Your task to perform on an android device: create a new album in the google photos Image 0: 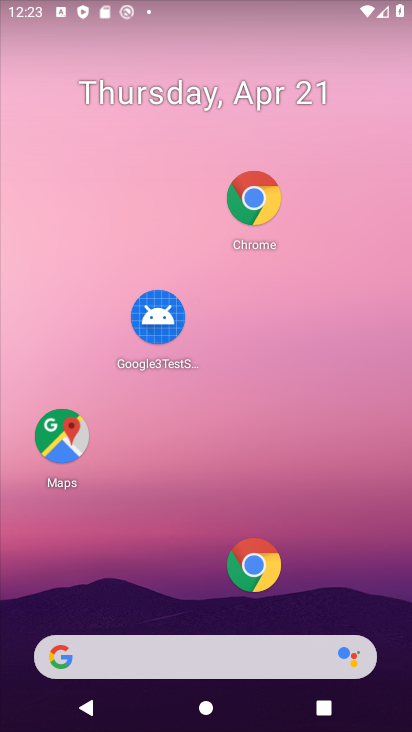
Step 0: drag from (168, 537) to (194, 102)
Your task to perform on an android device: create a new album in the google photos Image 1: 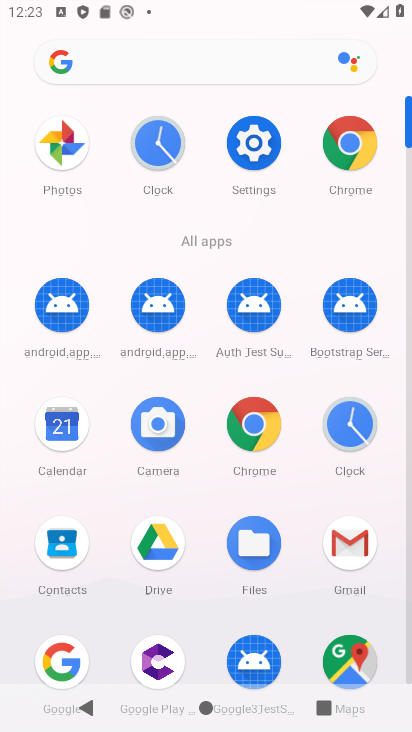
Step 1: click (60, 162)
Your task to perform on an android device: create a new album in the google photos Image 2: 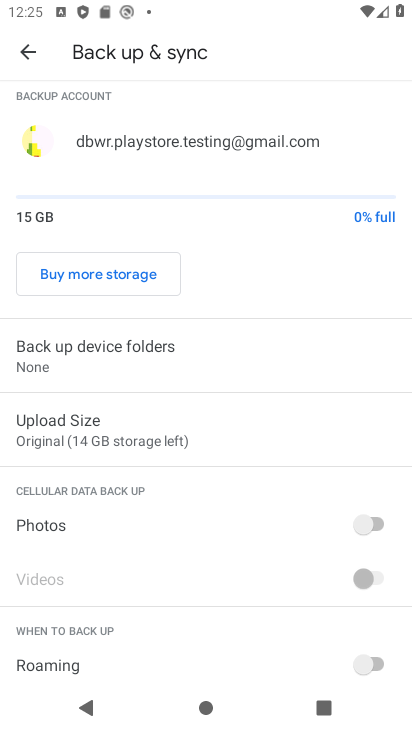
Step 2: click (25, 61)
Your task to perform on an android device: create a new album in the google photos Image 3: 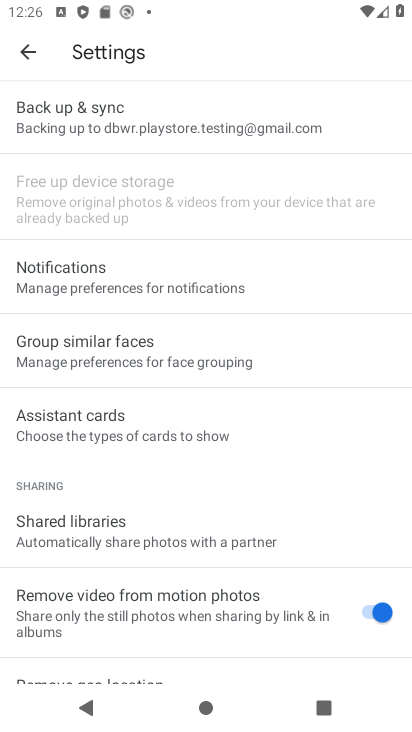
Step 3: click (33, 54)
Your task to perform on an android device: create a new album in the google photos Image 4: 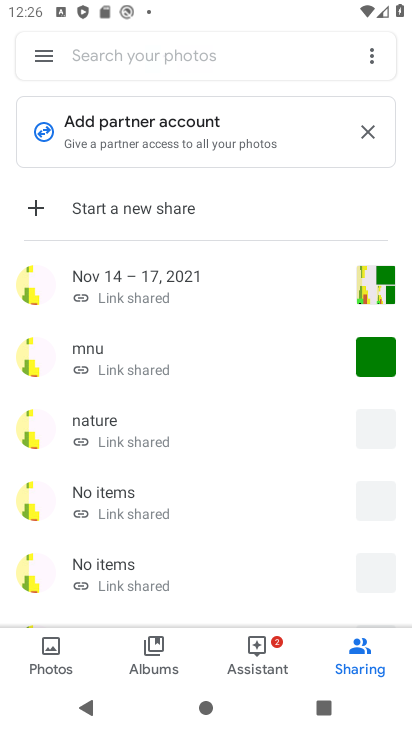
Step 4: click (160, 668)
Your task to perform on an android device: create a new album in the google photos Image 5: 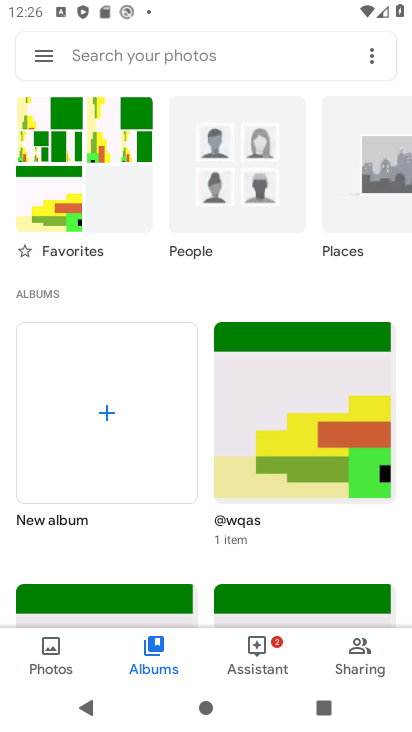
Step 5: click (113, 432)
Your task to perform on an android device: create a new album in the google photos Image 6: 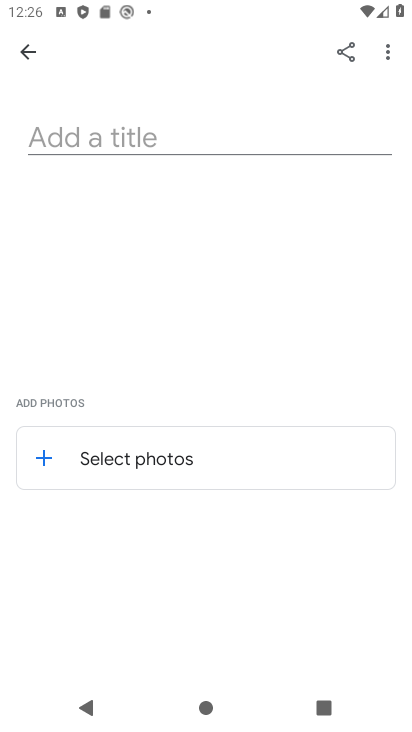
Step 6: click (122, 136)
Your task to perform on an android device: create a new album in the google photos Image 7: 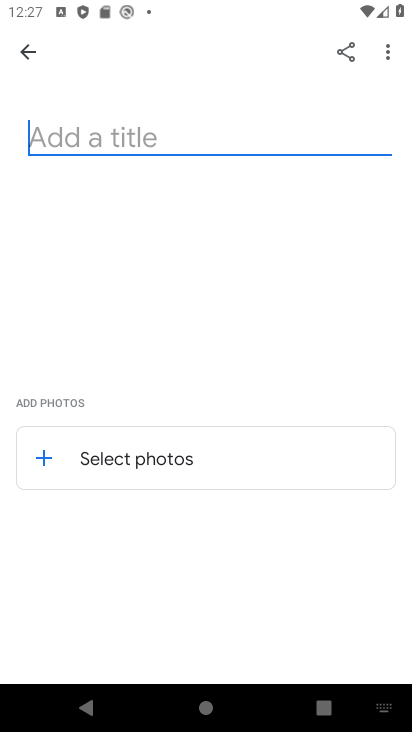
Step 7: type "yyrytdytjg"
Your task to perform on an android device: create a new album in the google photos Image 8: 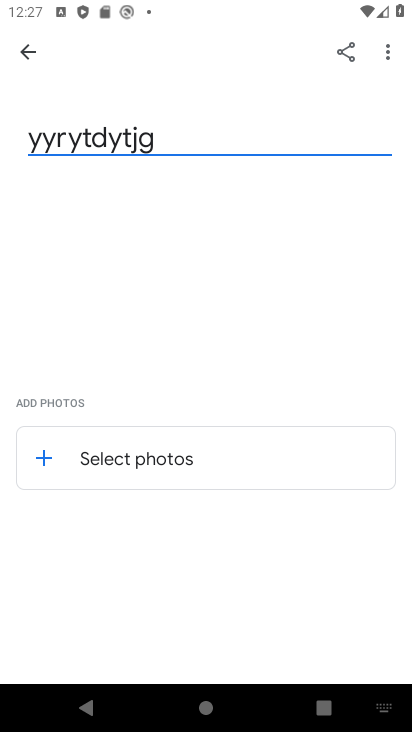
Step 8: click (196, 469)
Your task to perform on an android device: create a new album in the google photos Image 9: 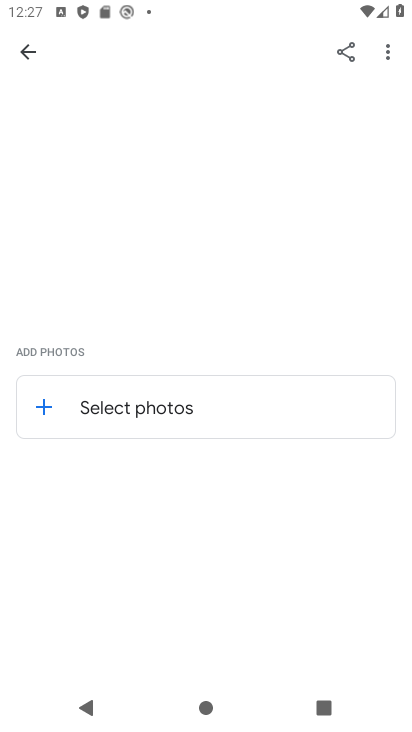
Step 9: click (145, 408)
Your task to perform on an android device: create a new album in the google photos Image 10: 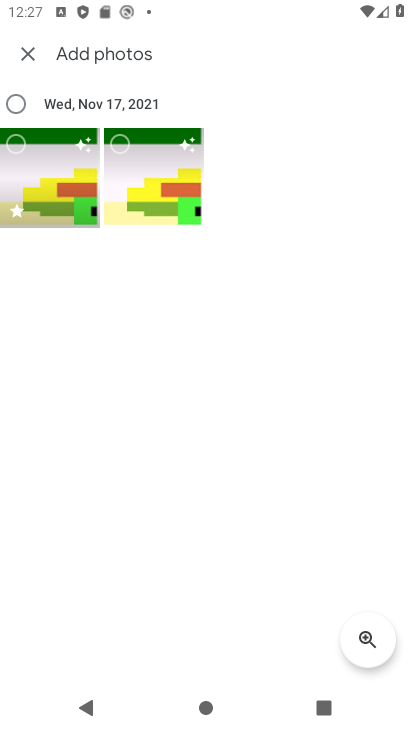
Step 10: click (31, 164)
Your task to perform on an android device: create a new album in the google photos Image 11: 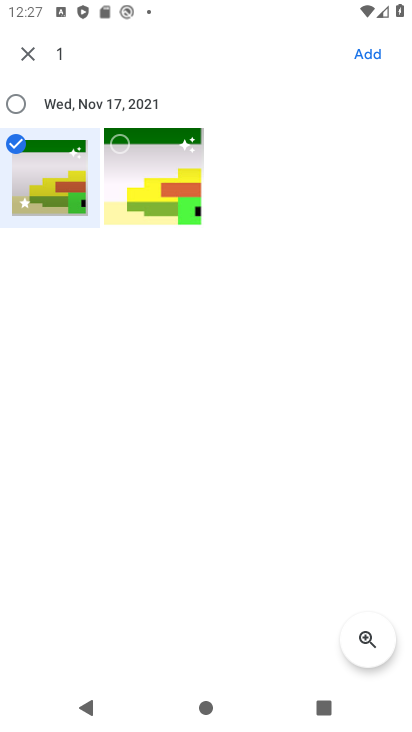
Step 11: click (125, 153)
Your task to perform on an android device: create a new album in the google photos Image 12: 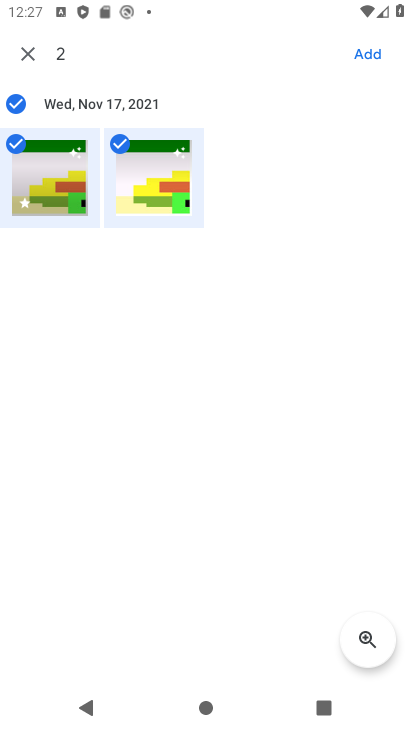
Step 12: click (380, 54)
Your task to perform on an android device: create a new album in the google photos Image 13: 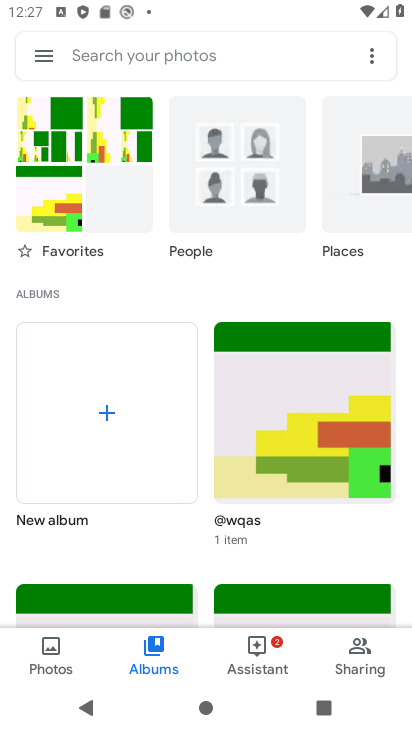
Step 13: task complete